Your task to perform on an android device: delete location history Image 0: 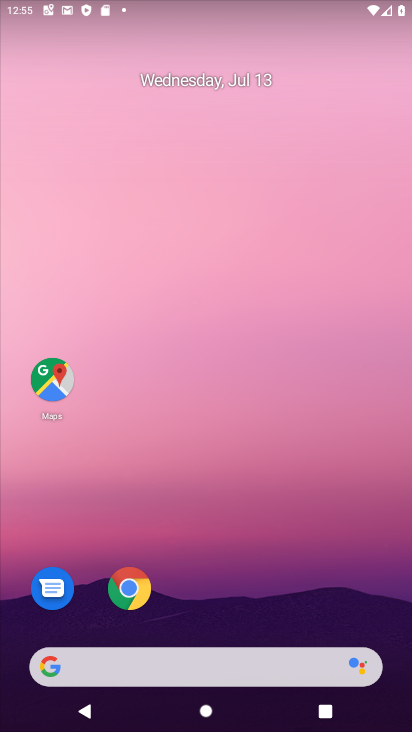
Step 0: drag from (259, 647) to (252, 330)
Your task to perform on an android device: delete location history Image 1: 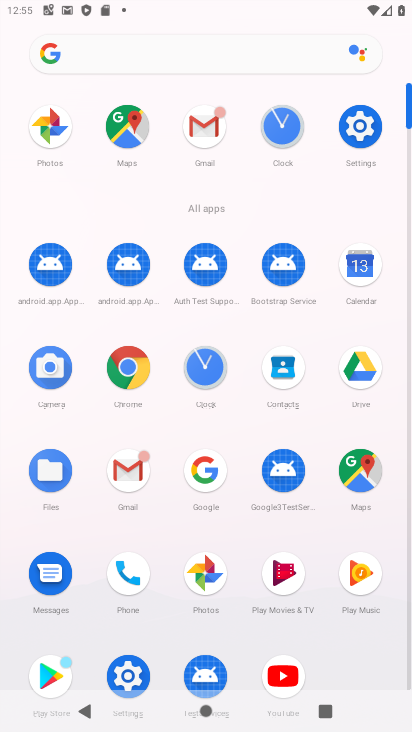
Step 1: click (353, 129)
Your task to perform on an android device: delete location history Image 2: 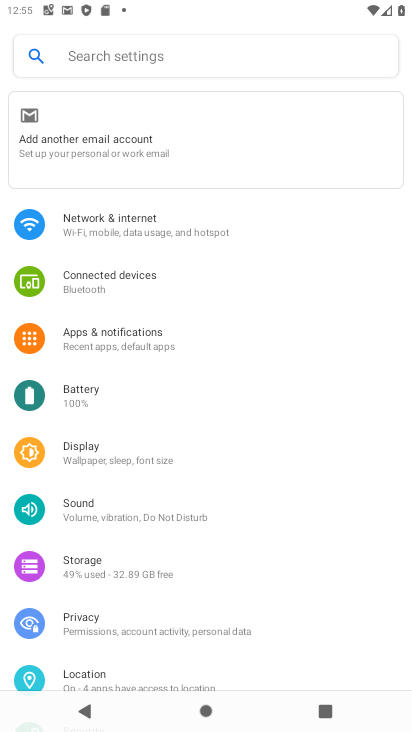
Step 2: click (108, 680)
Your task to perform on an android device: delete location history Image 3: 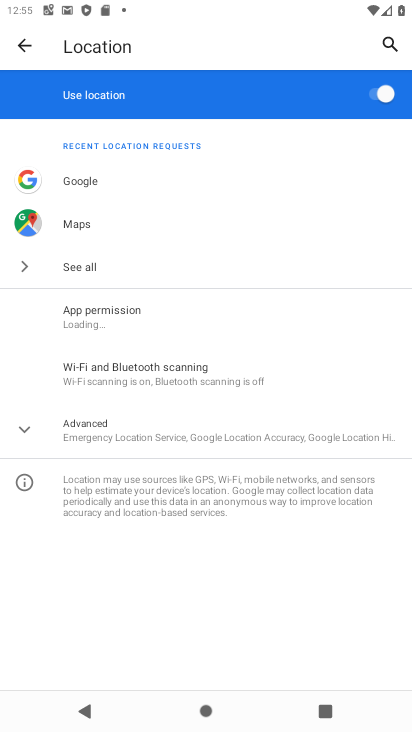
Step 3: click (179, 436)
Your task to perform on an android device: delete location history Image 4: 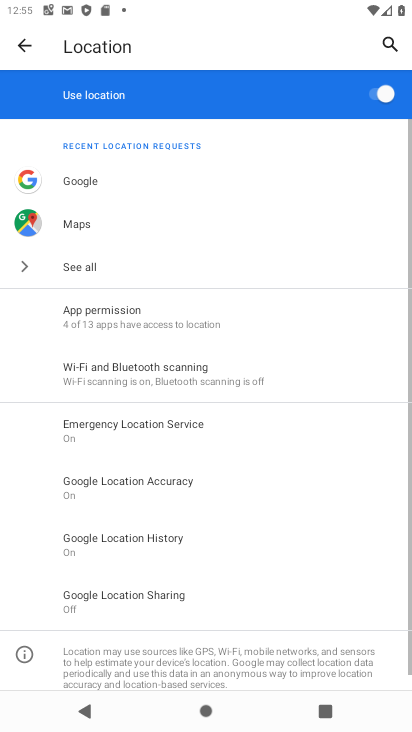
Step 4: click (154, 535)
Your task to perform on an android device: delete location history Image 5: 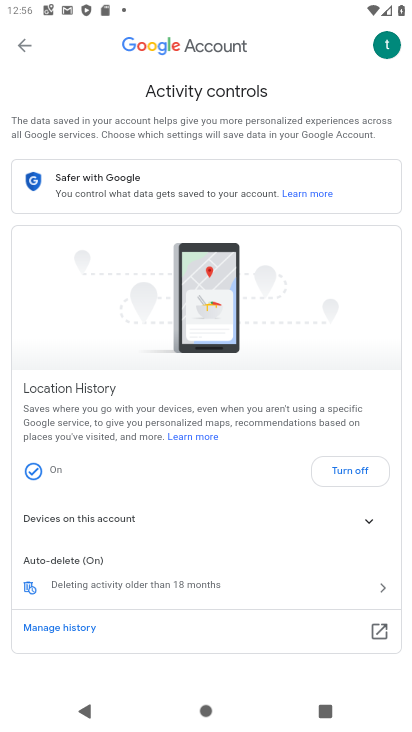
Step 5: click (155, 575)
Your task to perform on an android device: delete location history Image 6: 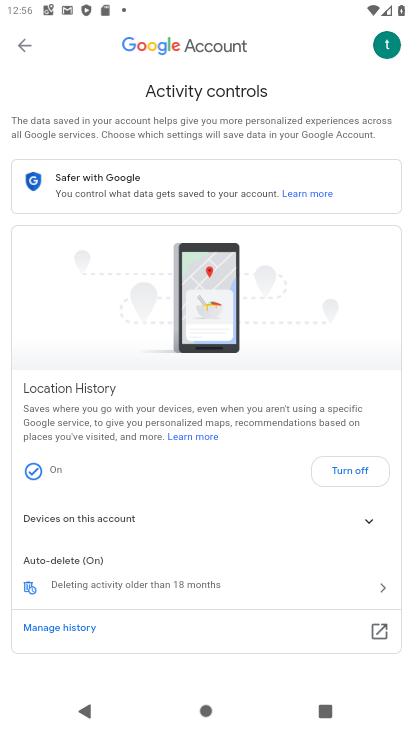
Step 6: click (105, 584)
Your task to perform on an android device: delete location history Image 7: 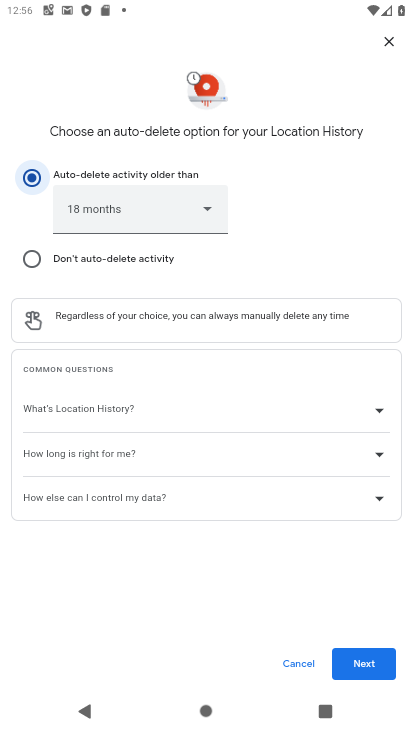
Step 7: click (369, 659)
Your task to perform on an android device: delete location history Image 8: 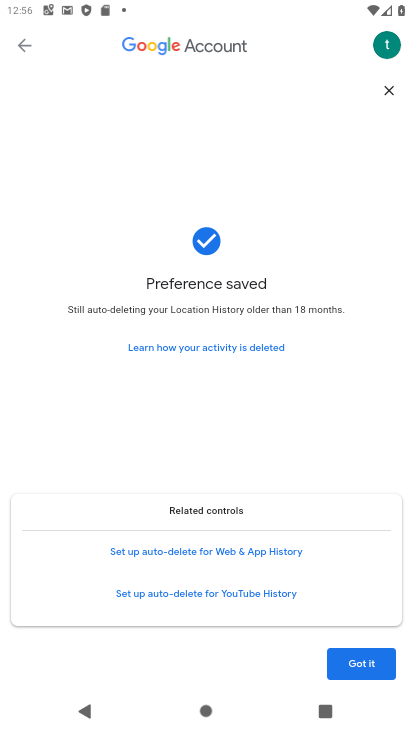
Step 8: click (373, 664)
Your task to perform on an android device: delete location history Image 9: 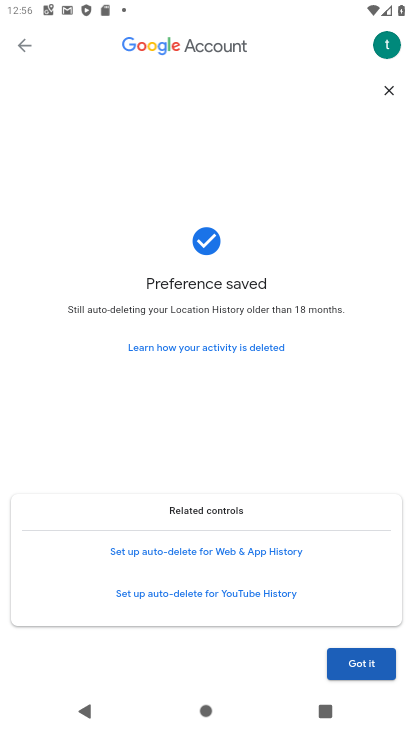
Step 9: click (353, 655)
Your task to perform on an android device: delete location history Image 10: 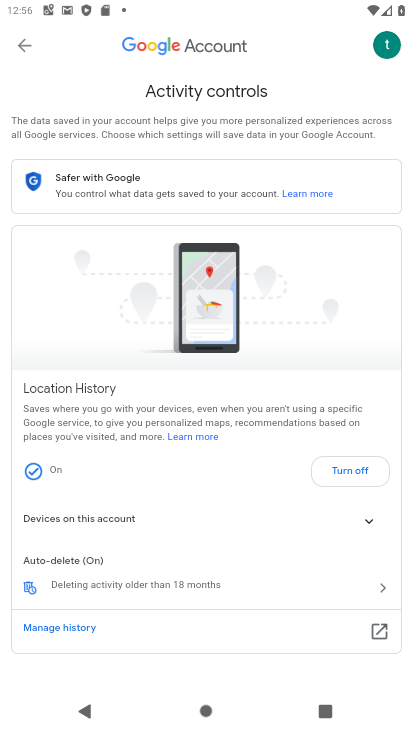
Step 10: task complete